Your task to perform on an android device: move a message to another label in the gmail app Image 0: 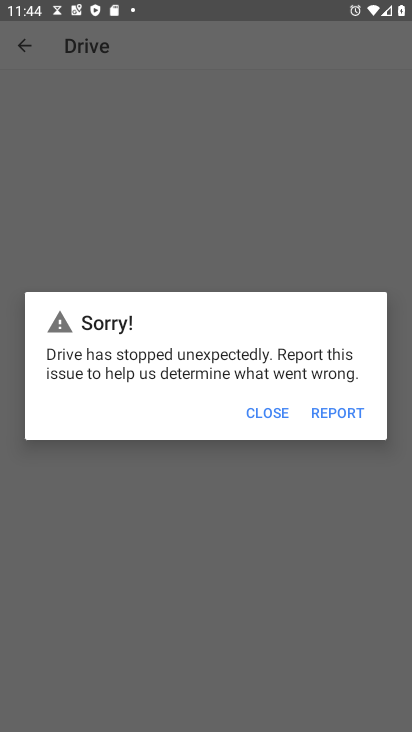
Step 0: press home button
Your task to perform on an android device: move a message to another label in the gmail app Image 1: 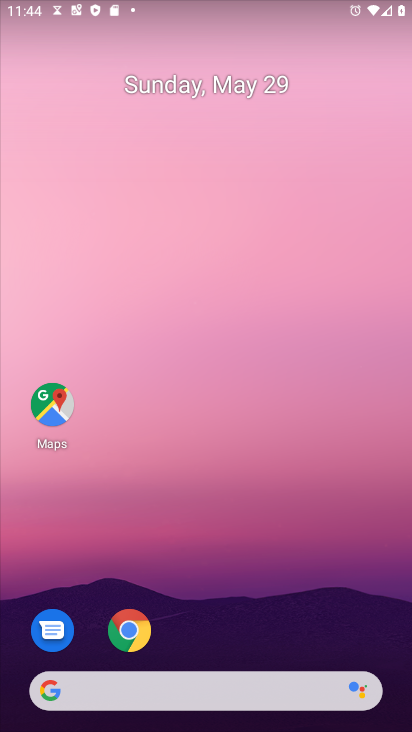
Step 1: drag from (250, 522) to (223, 185)
Your task to perform on an android device: move a message to another label in the gmail app Image 2: 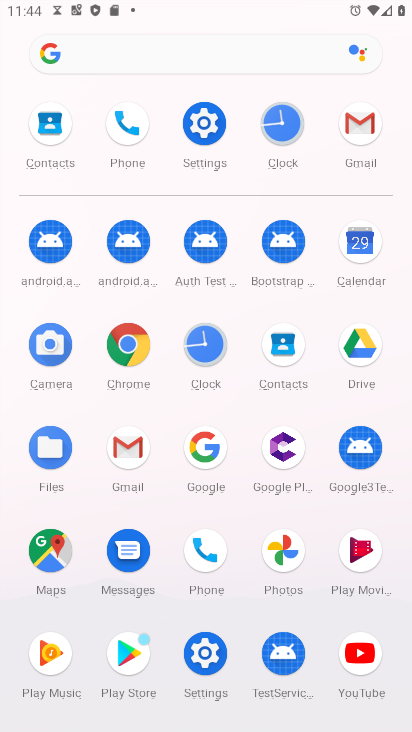
Step 2: click (359, 124)
Your task to perform on an android device: move a message to another label in the gmail app Image 3: 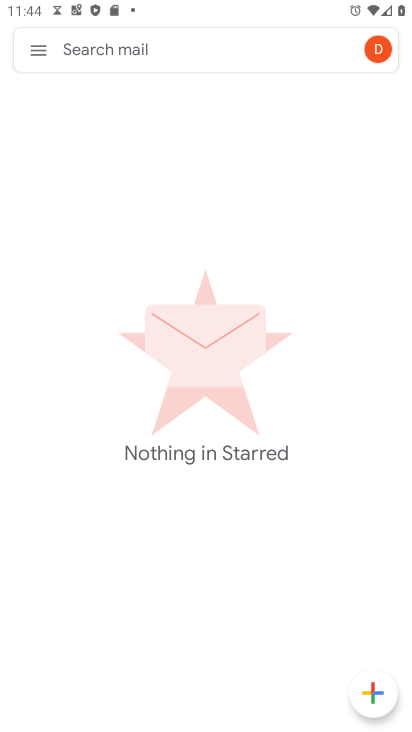
Step 3: click (36, 52)
Your task to perform on an android device: move a message to another label in the gmail app Image 4: 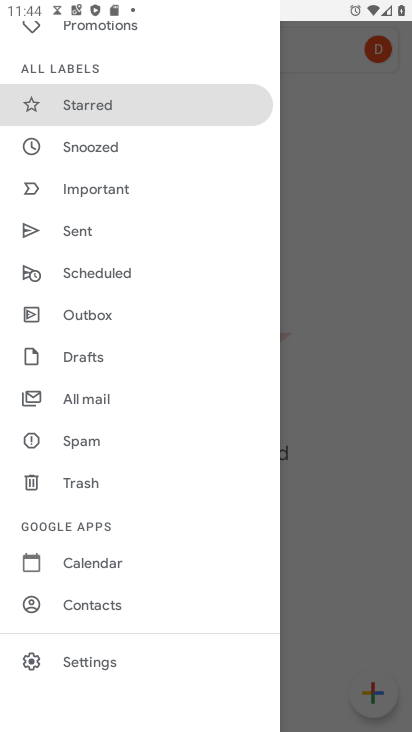
Step 4: click (125, 408)
Your task to perform on an android device: move a message to another label in the gmail app Image 5: 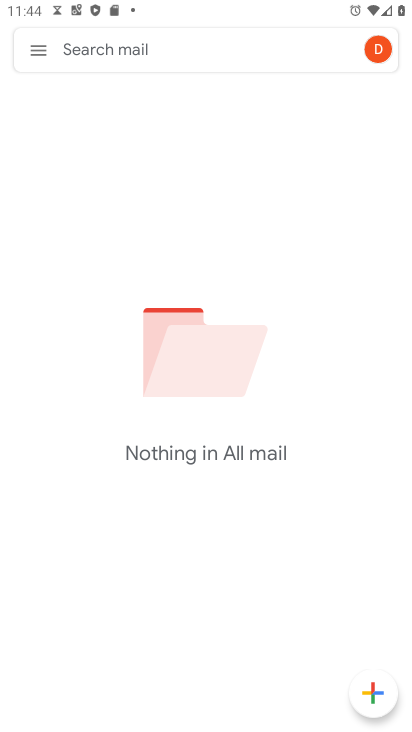
Step 5: task complete